Your task to perform on an android device: read, delete, or share a saved page in the chrome app Image 0: 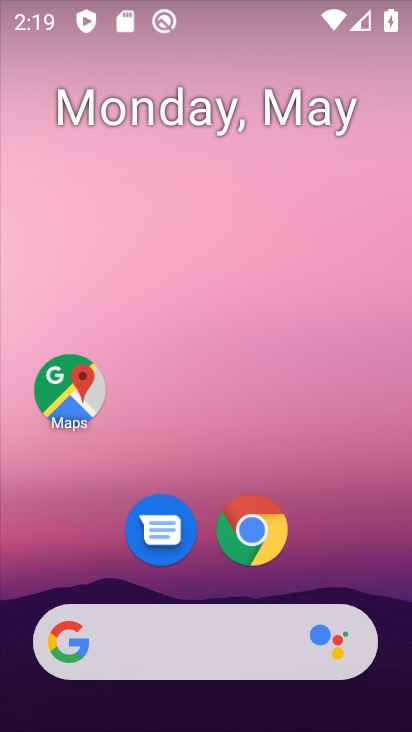
Step 0: click (225, 541)
Your task to perform on an android device: read, delete, or share a saved page in the chrome app Image 1: 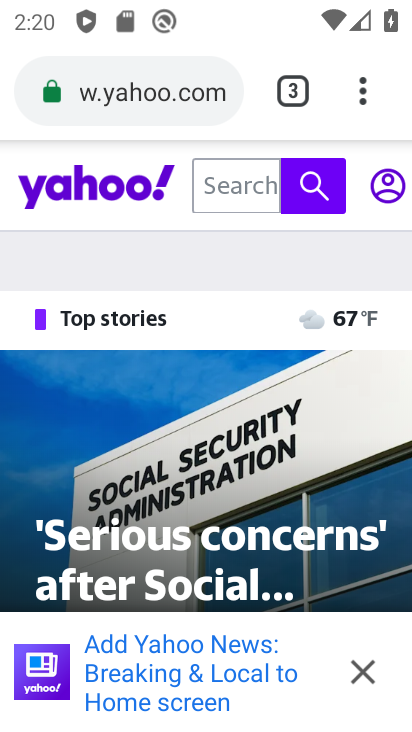
Step 1: drag from (352, 82) to (136, 605)
Your task to perform on an android device: read, delete, or share a saved page in the chrome app Image 2: 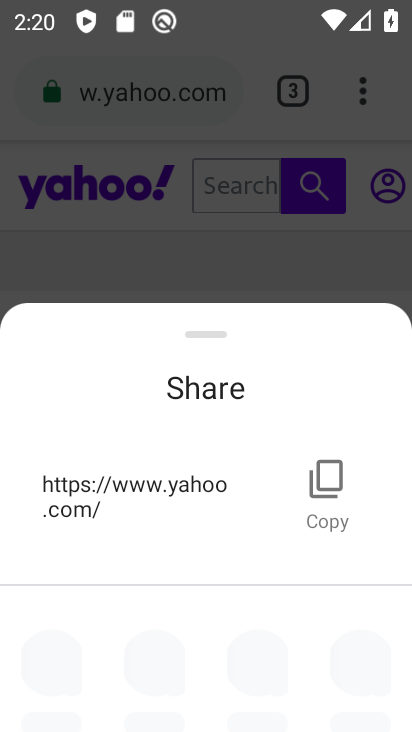
Step 2: click (317, 248)
Your task to perform on an android device: read, delete, or share a saved page in the chrome app Image 3: 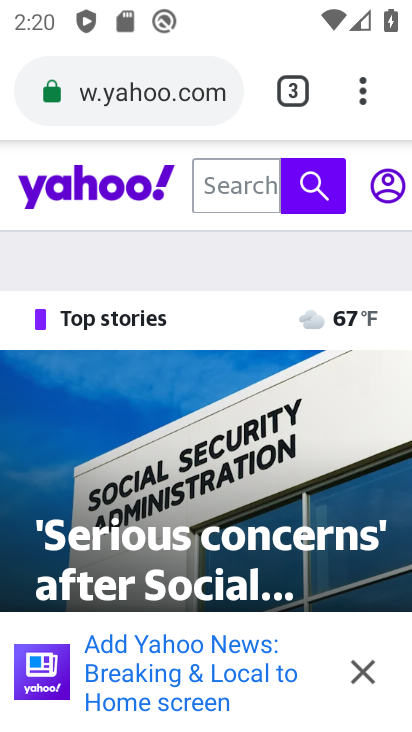
Step 3: drag from (359, 84) to (163, 567)
Your task to perform on an android device: read, delete, or share a saved page in the chrome app Image 4: 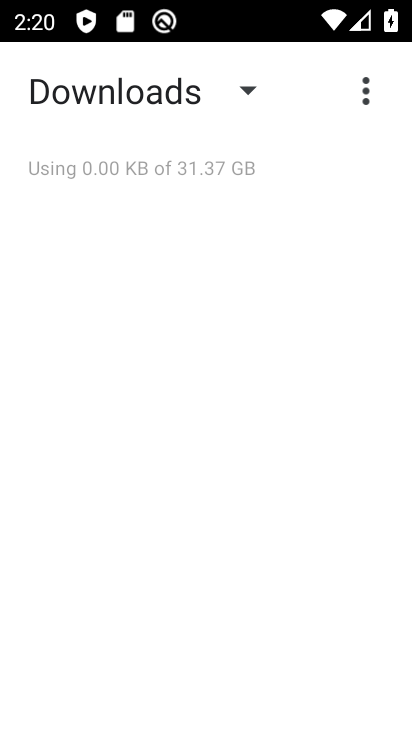
Step 4: click (234, 86)
Your task to perform on an android device: read, delete, or share a saved page in the chrome app Image 5: 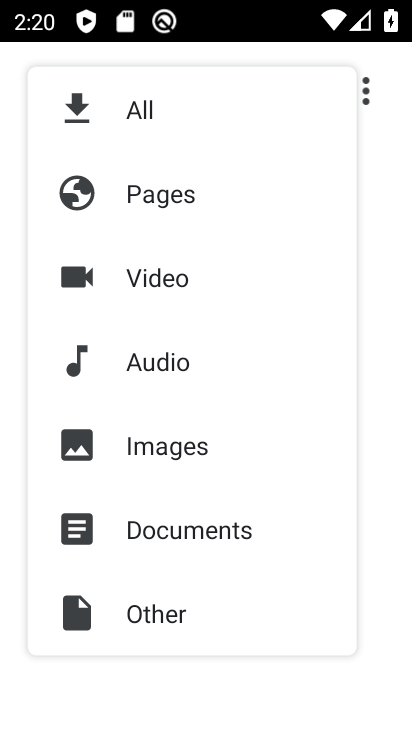
Step 5: click (168, 189)
Your task to perform on an android device: read, delete, or share a saved page in the chrome app Image 6: 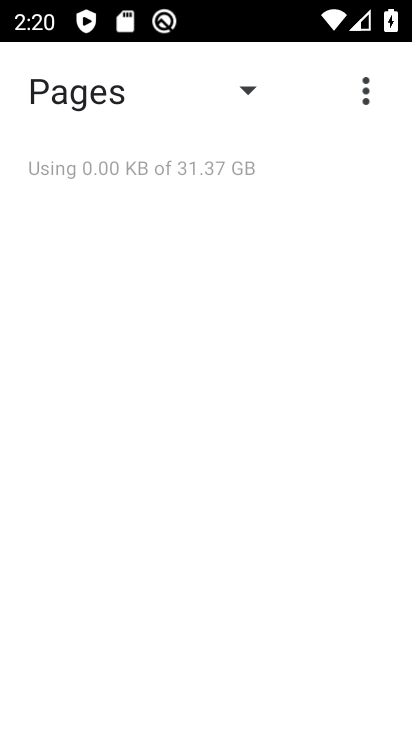
Step 6: task complete